Your task to perform on an android device: Search for hotels in Las Vegas Image 0: 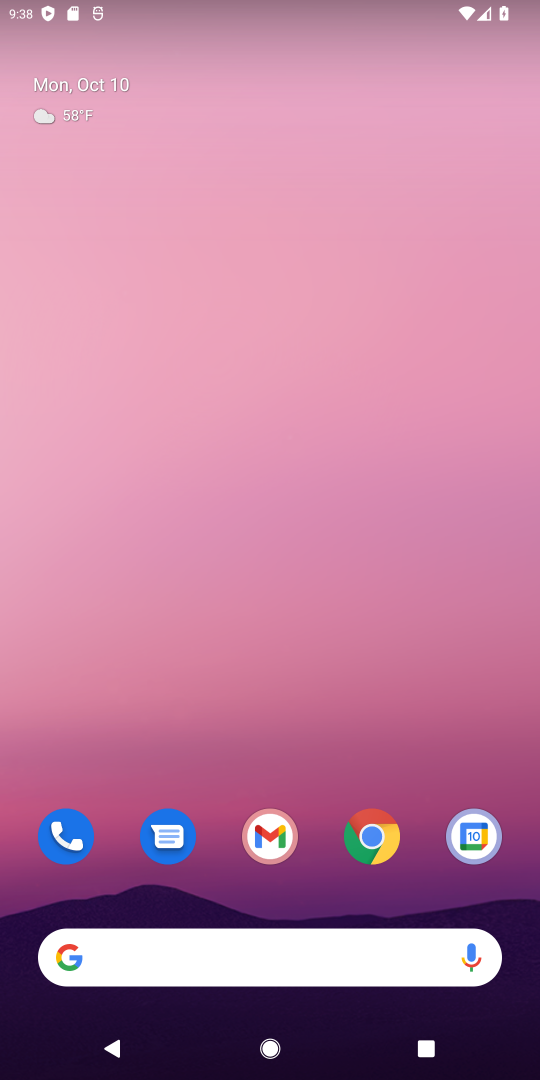
Step 0: drag from (307, 916) to (307, 15)
Your task to perform on an android device: Search for hotels in Las Vegas Image 1: 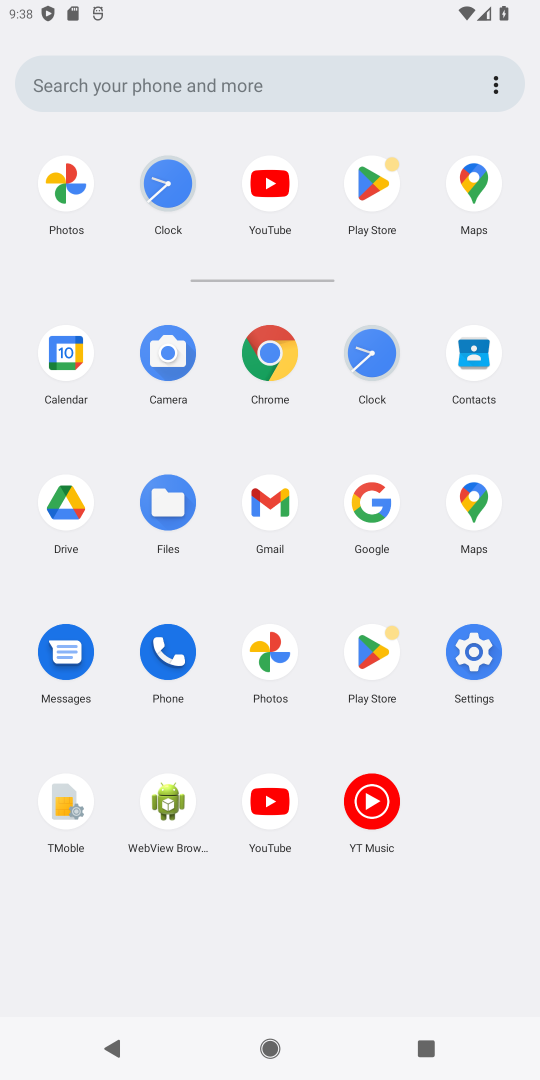
Step 1: click (365, 475)
Your task to perform on an android device: Search for hotels in Las Vegas Image 2: 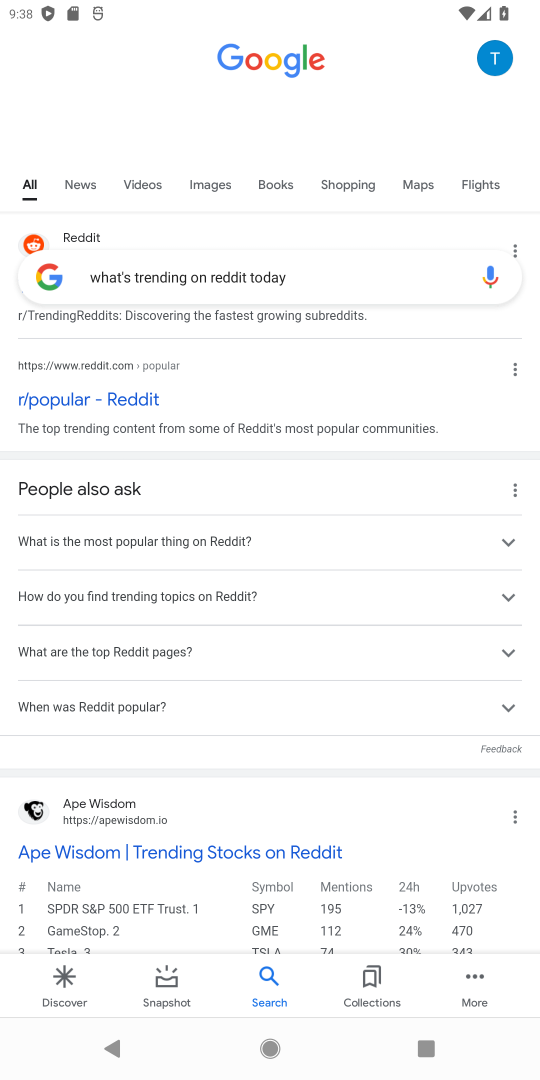
Step 2: click (273, 282)
Your task to perform on an android device: Search for hotels in Las Vegas Image 3: 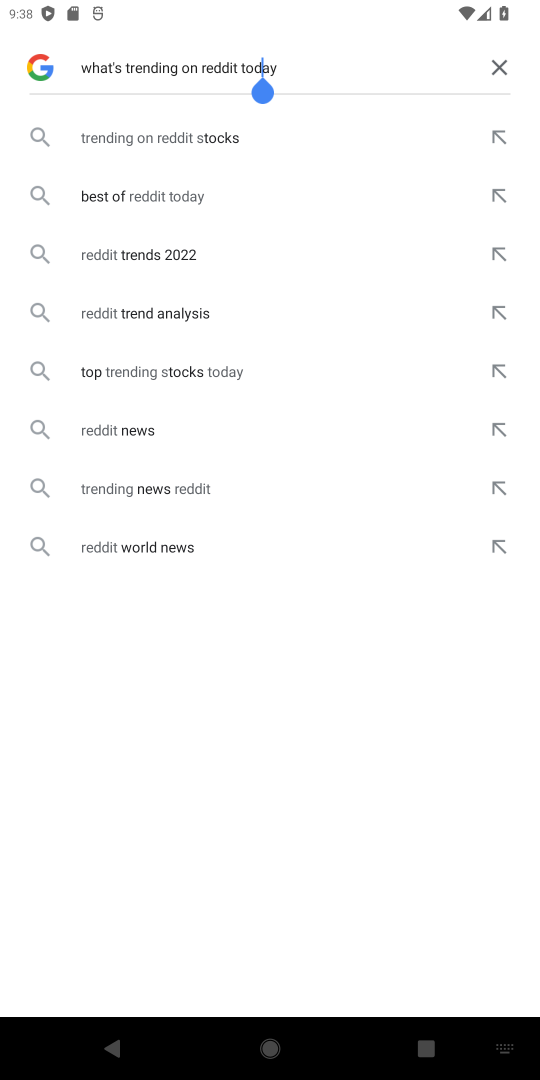
Step 3: click (499, 62)
Your task to perform on an android device: Search for hotels in Las Vegas Image 4: 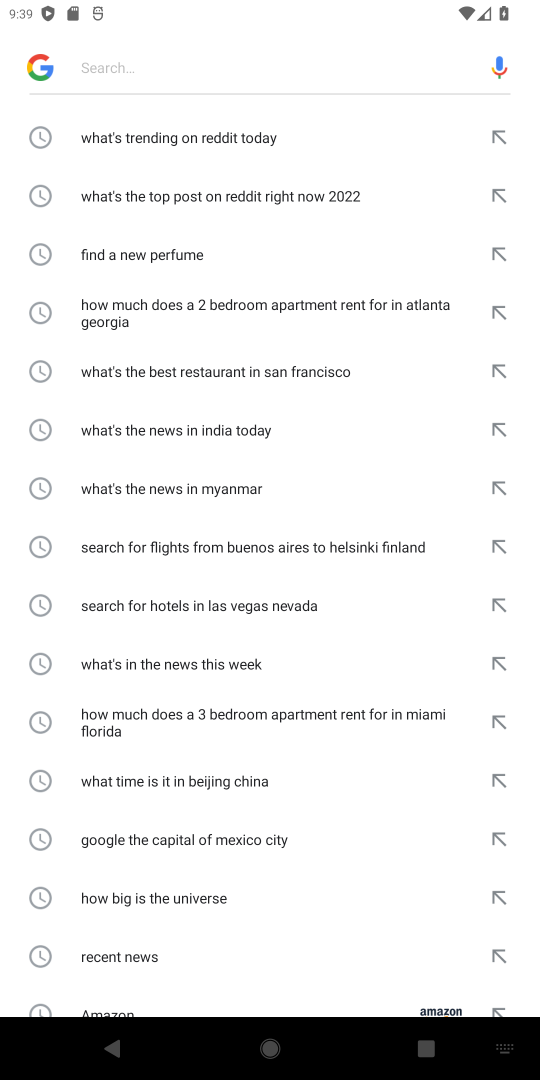
Step 4: type "Search for hotels in Las Vegas"
Your task to perform on an android device: Search for hotels in Las Vegas Image 5: 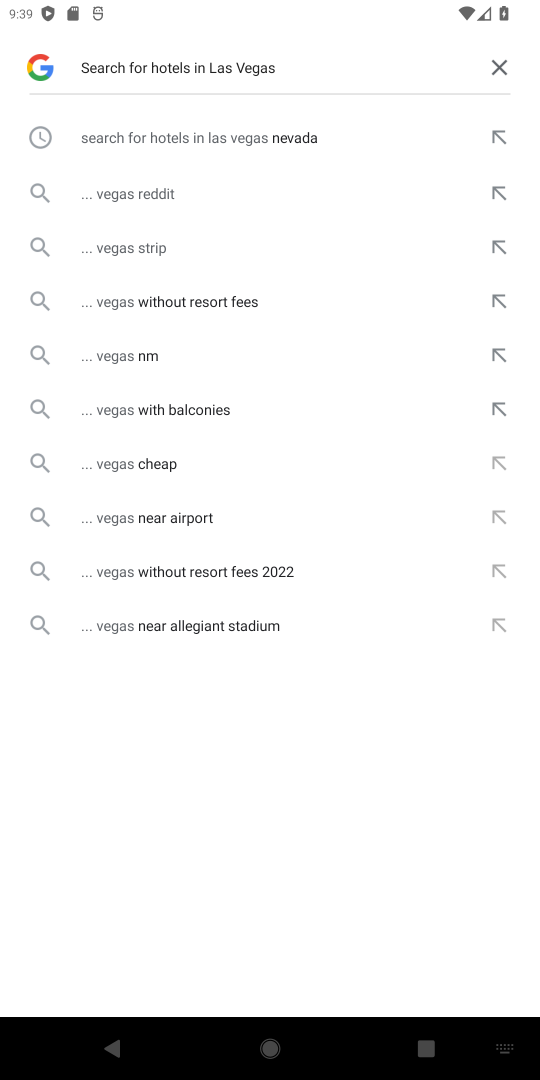
Step 5: click (206, 138)
Your task to perform on an android device: Search for hotels in Las Vegas Image 6: 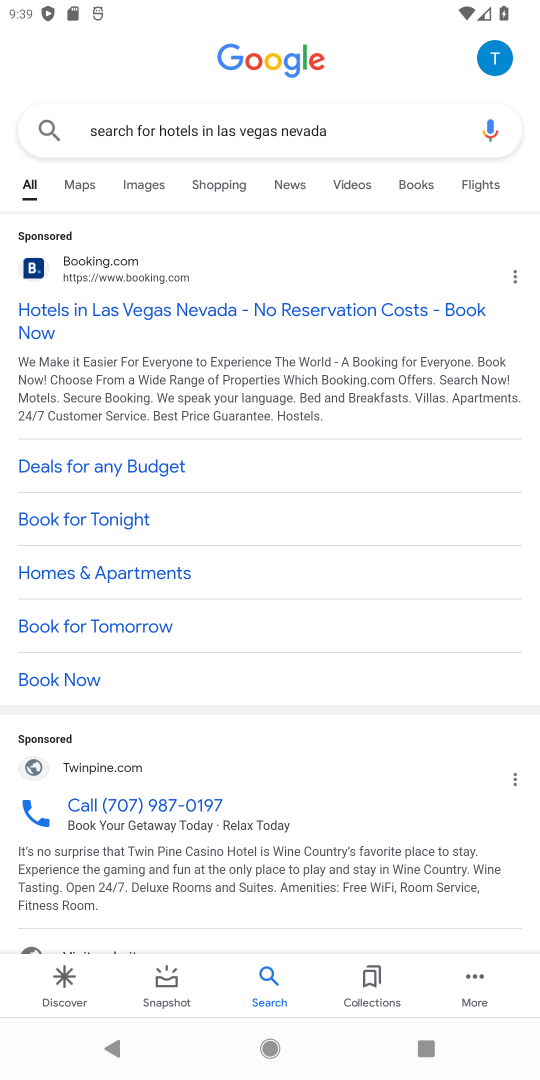
Step 6: click (251, 312)
Your task to perform on an android device: Search for hotels in Las Vegas Image 7: 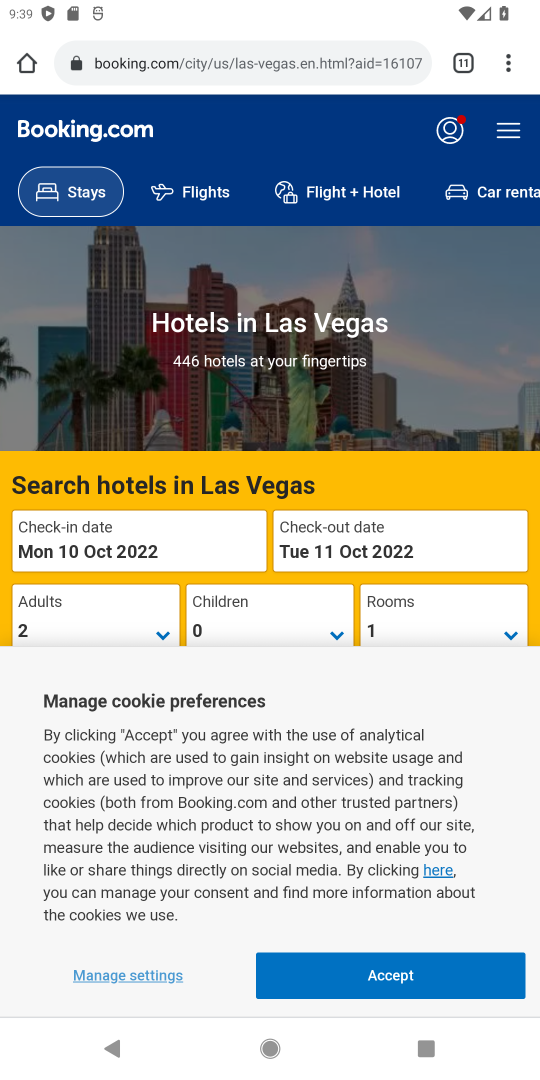
Step 7: task complete